Your task to perform on an android device: clear history in the chrome app Image 0: 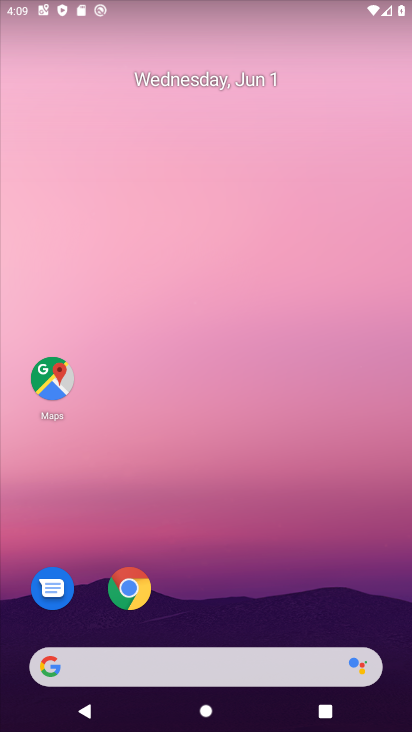
Step 0: click (133, 590)
Your task to perform on an android device: clear history in the chrome app Image 1: 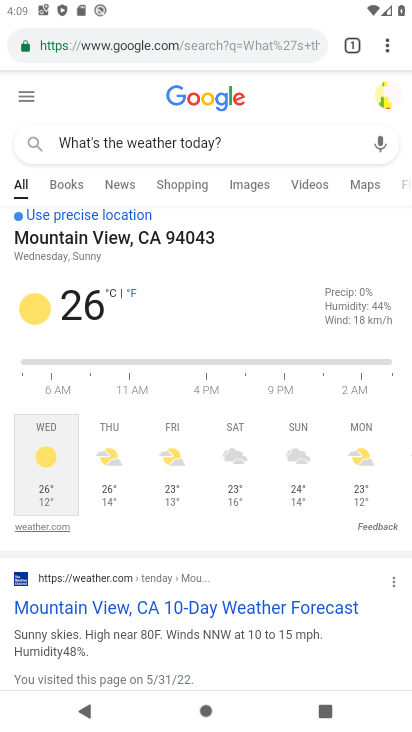
Step 1: click (386, 60)
Your task to perform on an android device: clear history in the chrome app Image 2: 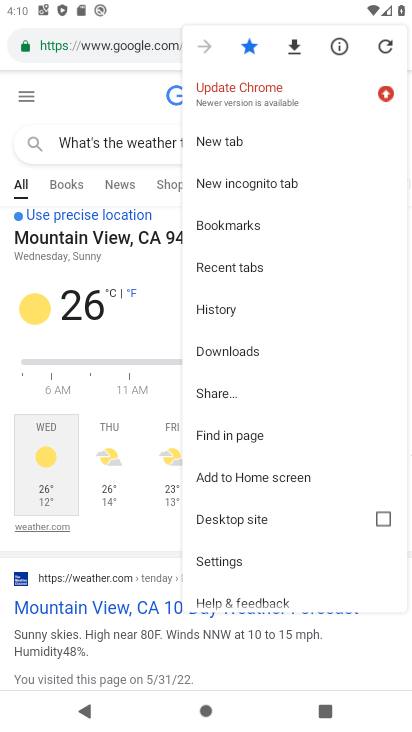
Step 2: click (254, 296)
Your task to perform on an android device: clear history in the chrome app Image 3: 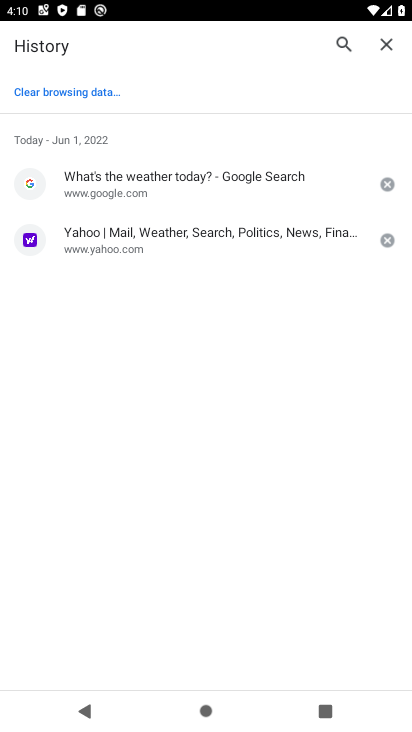
Step 3: click (73, 87)
Your task to perform on an android device: clear history in the chrome app Image 4: 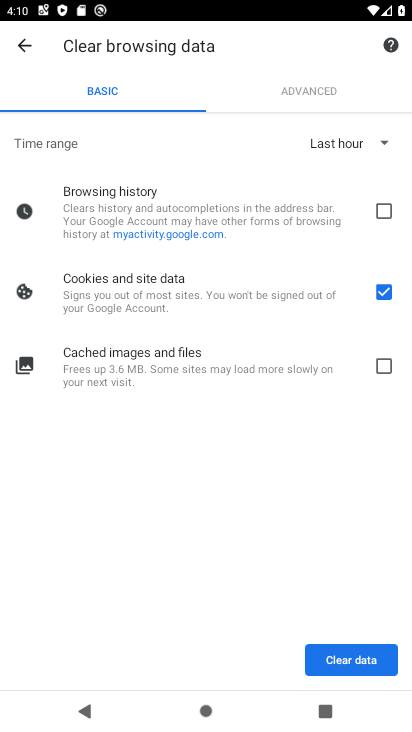
Step 4: click (374, 287)
Your task to perform on an android device: clear history in the chrome app Image 5: 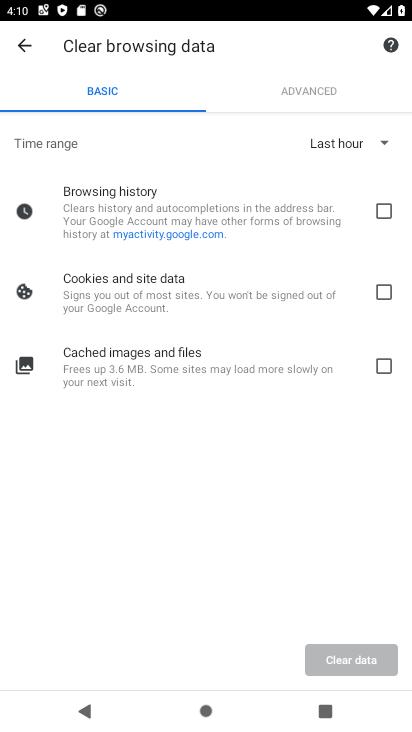
Step 5: click (386, 210)
Your task to perform on an android device: clear history in the chrome app Image 6: 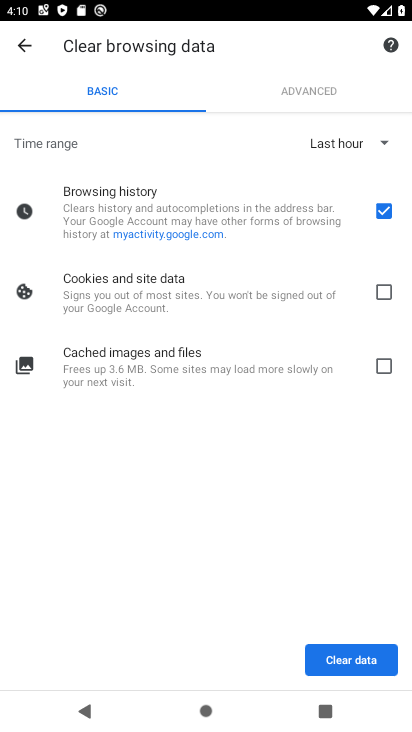
Step 6: click (369, 658)
Your task to perform on an android device: clear history in the chrome app Image 7: 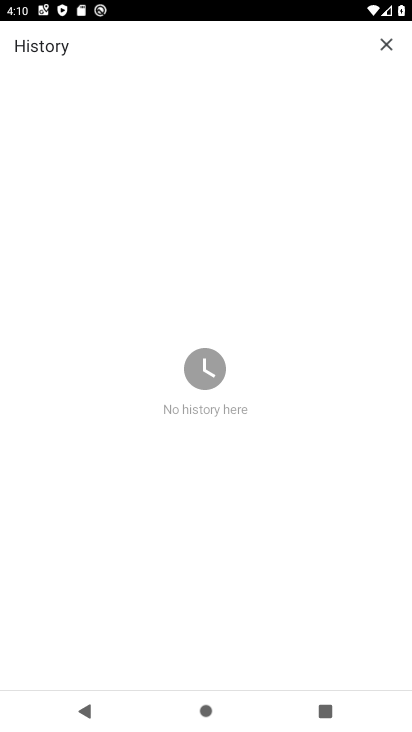
Step 7: task complete